Your task to perform on an android device: turn on location history Image 0: 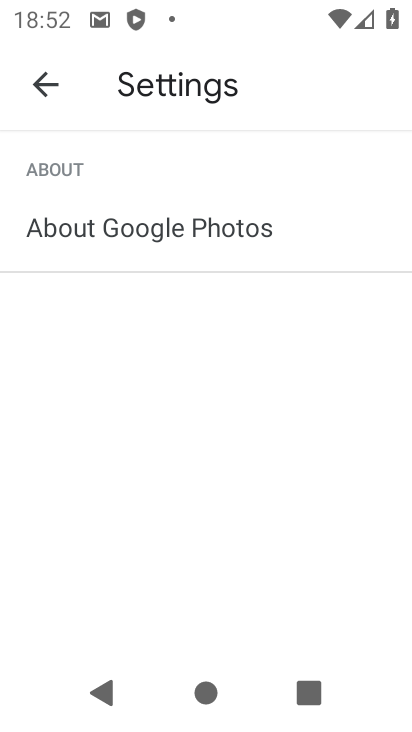
Step 0: press home button
Your task to perform on an android device: turn on location history Image 1: 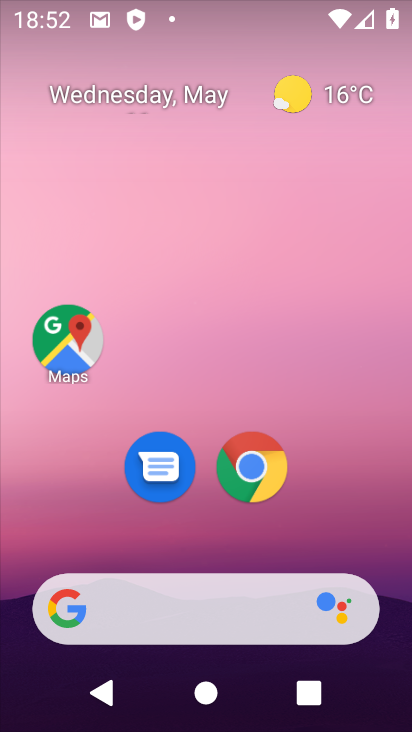
Step 1: click (78, 353)
Your task to perform on an android device: turn on location history Image 2: 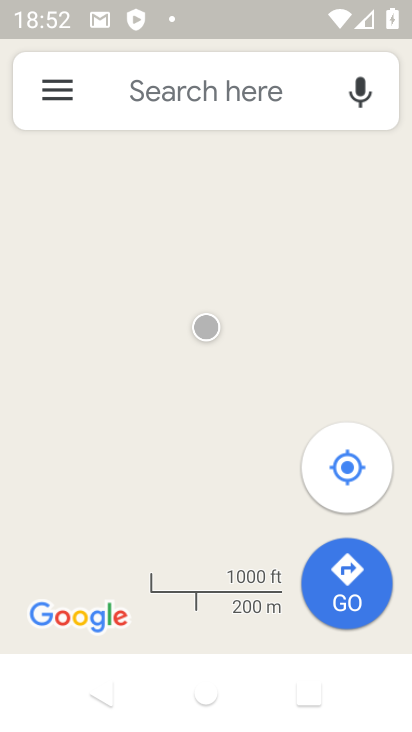
Step 2: click (52, 90)
Your task to perform on an android device: turn on location history Image 3: 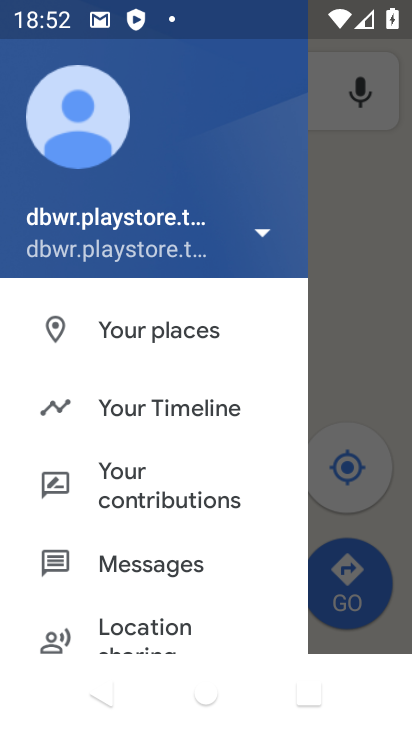
Step 3: click (180, 407)
Your task to perform on an android device: turn on location history Image 4: 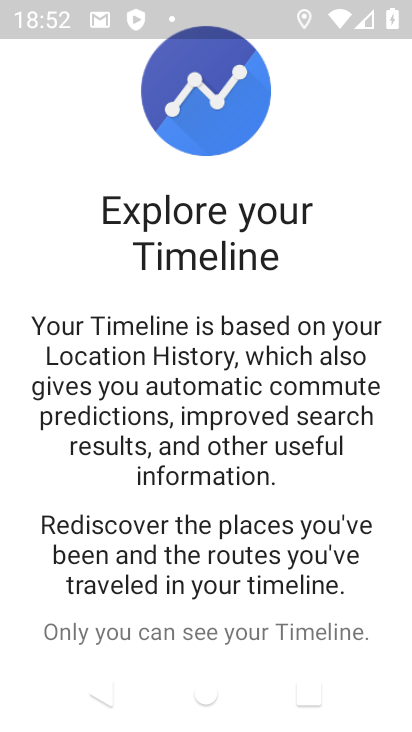
Step 4: drag from (269, 505) to (239, 225)
Your task to perform on an android device: turn on location history Image 5: 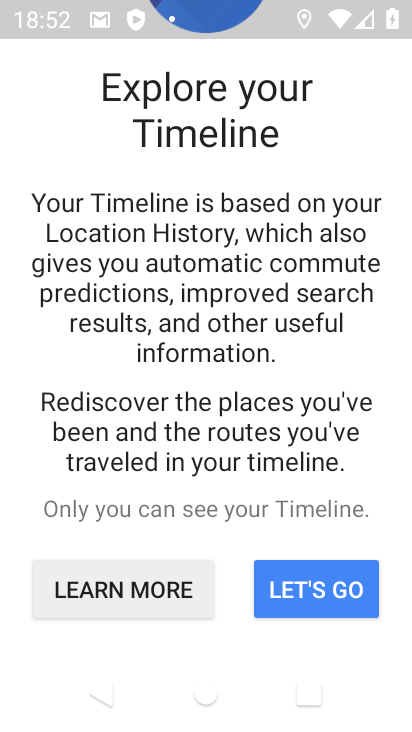
Step 5: drag from (263, 517) to (256, 206)
Your task to perform on an android device: turn on location history Image 6: 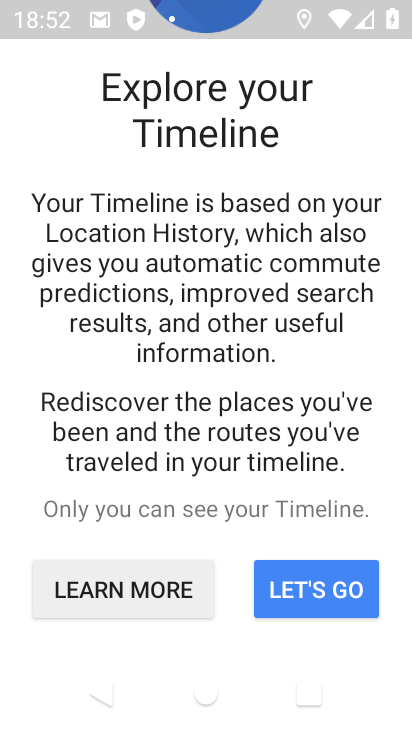
Step 6: click (286, 581)
Your task to perform on an android device: turn on location history Image 7: 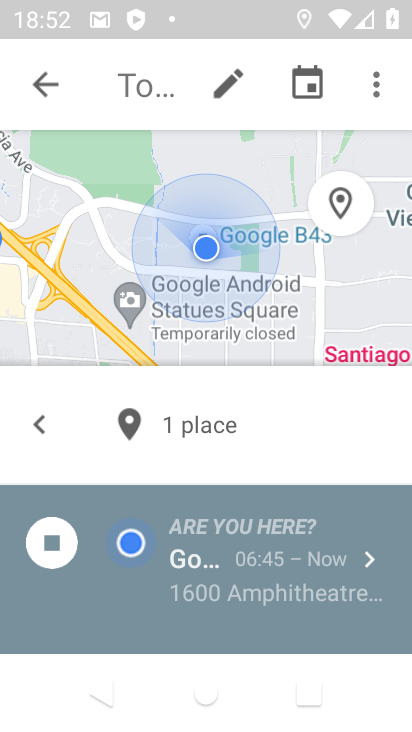
Step 7: click (375, 75)
Your task to perform on an android device: turn on location history Image 8: 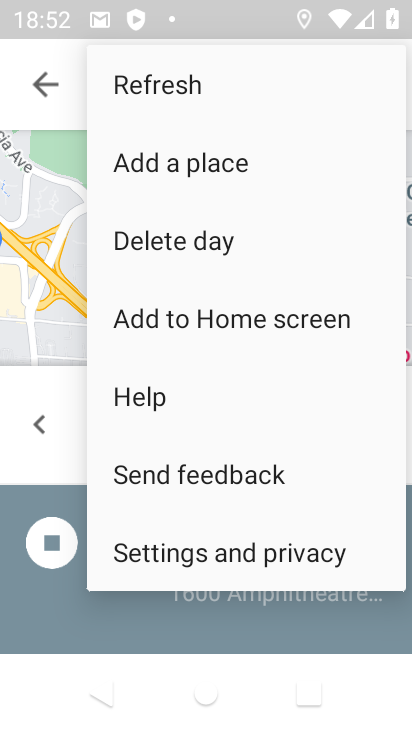
Step 8: click (246, 559)
Your task to perform on an android device: turn on location history Image 9: 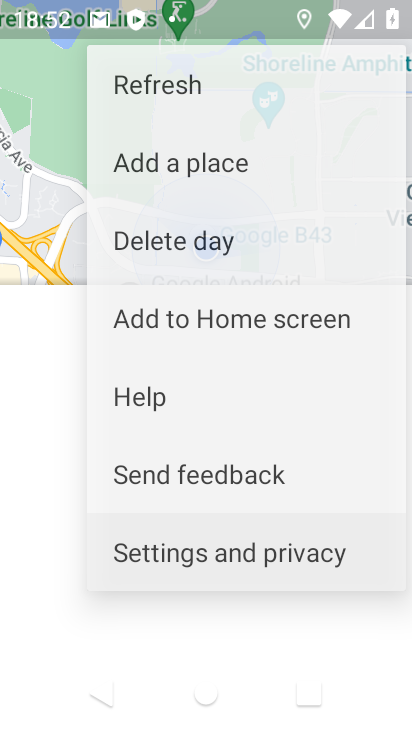
Step 9: click (246, 559)
Your task to perform on an android device: turn on location history Image 10: 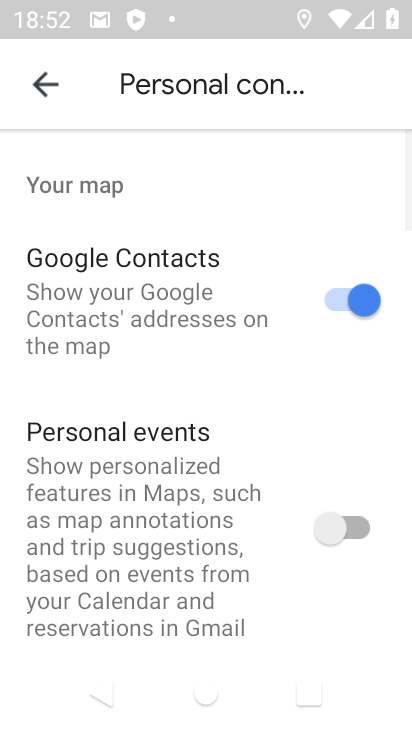
Step 10: drag from (237, 542) to (80, 218)
Your task to perform on an android device: turn on location history Image 11: 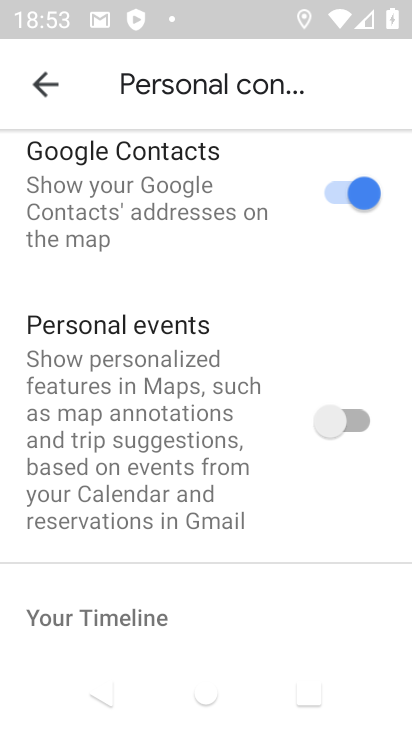
Step 11: drag from (169, 526) to (169, 309)
Your task to perform on an android device: turn on location history Image 12: 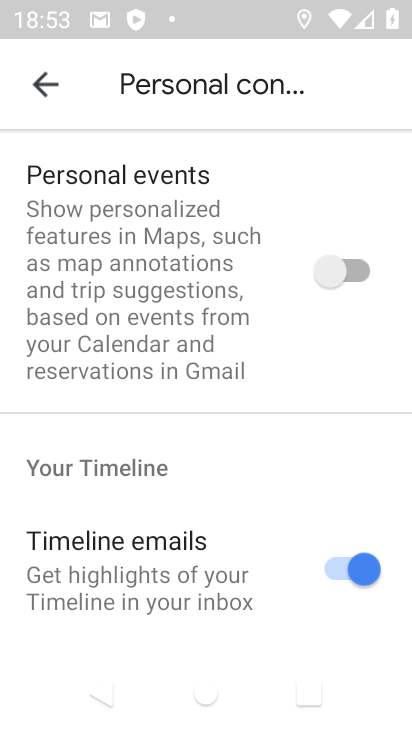
Step 12: drag from (198, 440) to (168, 160)
Your task to perform on an android device: turn on location history Image 13: 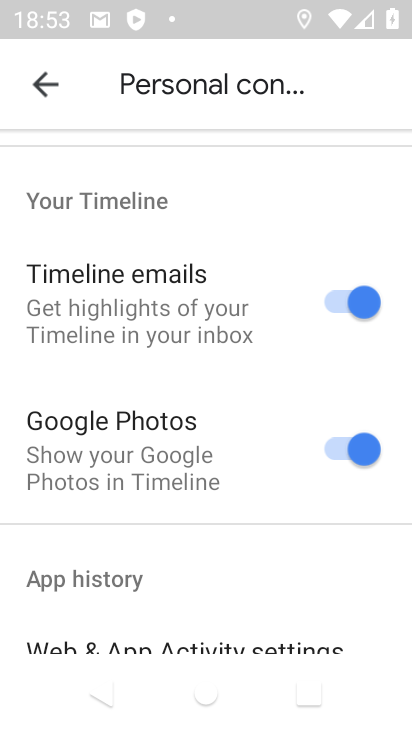
Step 13: drag from (221, 535) to (203, 274)
Your task to perform on an android device: turn on location history Image 14: 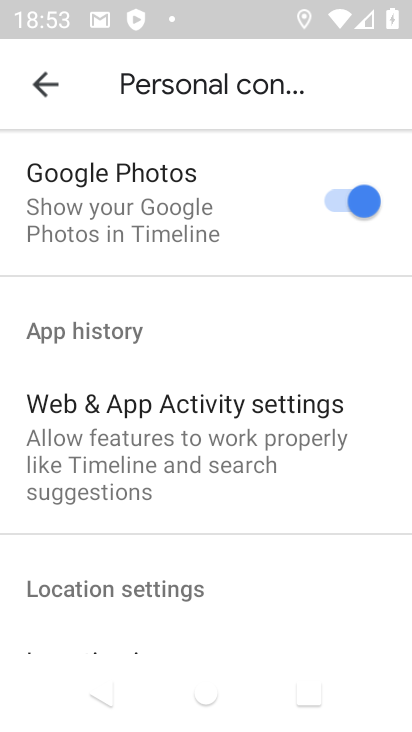
Step 14: drag from (219, 505) to (182, 221)
Your task to perform on an android device: turn on location history Image 15: 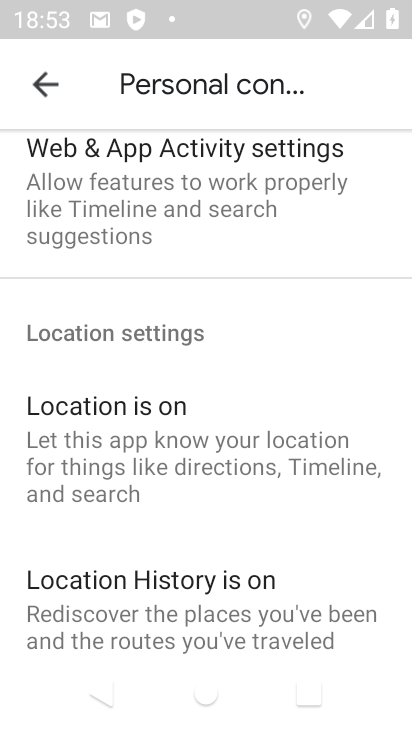
Step 15: drag from (182, 518) to (165, 319)
Your task to perform on an android device: turn on location history Image 16: 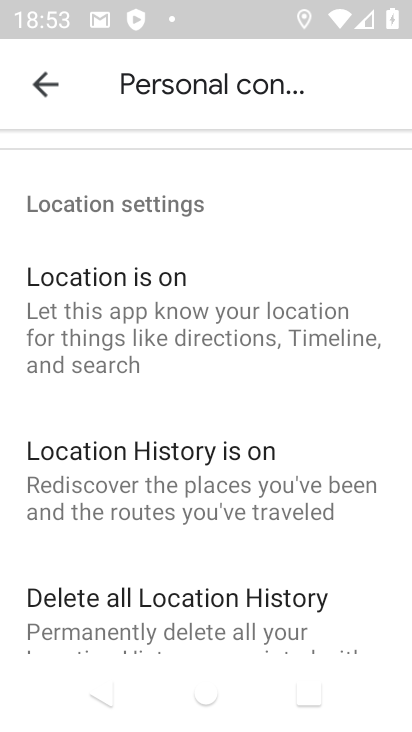
Step 16: click (148, 447)
Your task to perform on an android device: turn on location history Image 17: 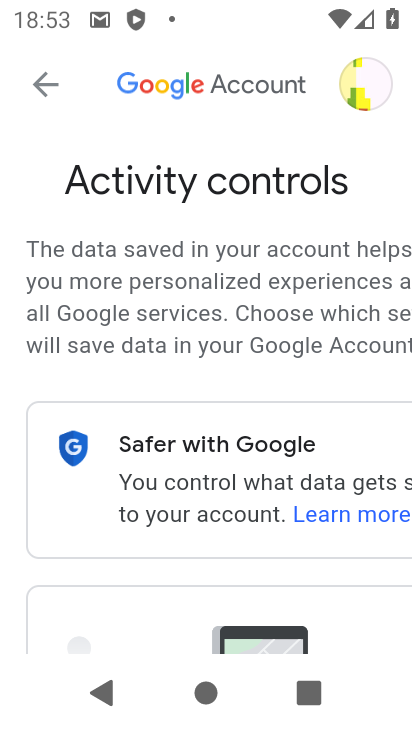
Step 17: drag from (196, 526) to (117, 161)
Your task to perform on an android device: turn on location history Image 18: 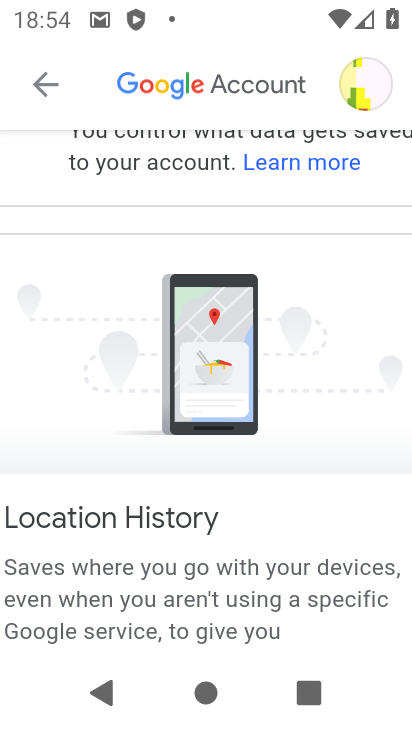
Step 18: drag from (243, 530) to (280, 109)
Your task to perform on an android device: turn on location history Image 19: 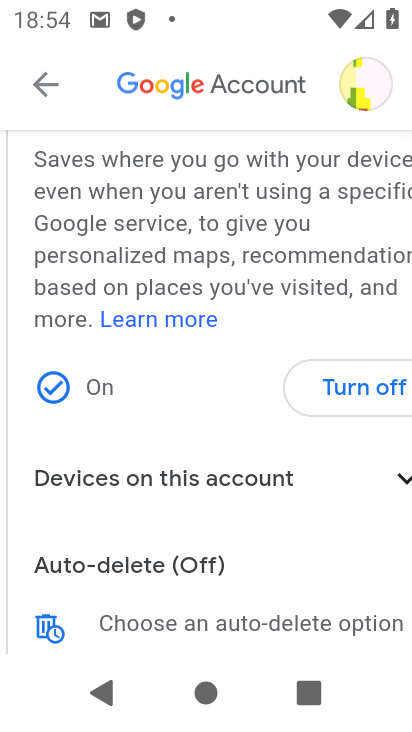
Step 19: click (321, 401)
Your task to perform on an android device: turn on location history Image 20: 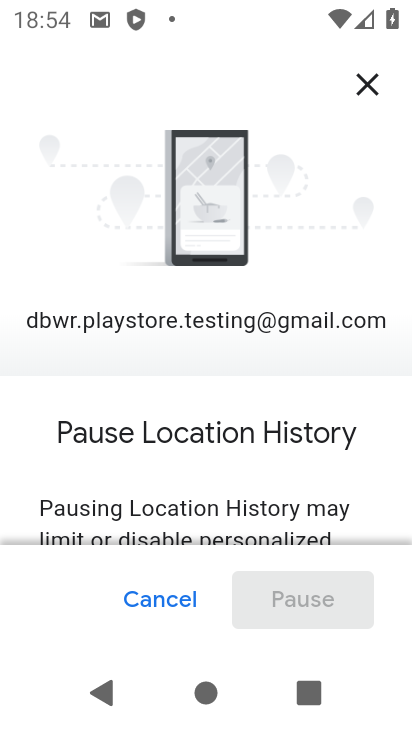
Step 20: task complete